Your task to perform on an android device: Check the weather Image 0: 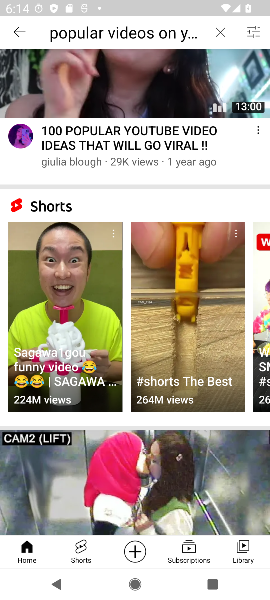
Step 0: press home button
Your task to perform on an android device: Check the weather Image 1: 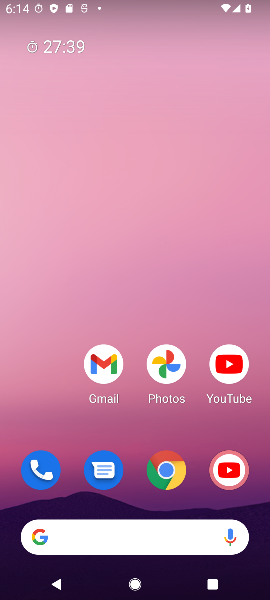
Step 1: click (168, 462)
Your task to perform on an android device: Check the weather Image 2: 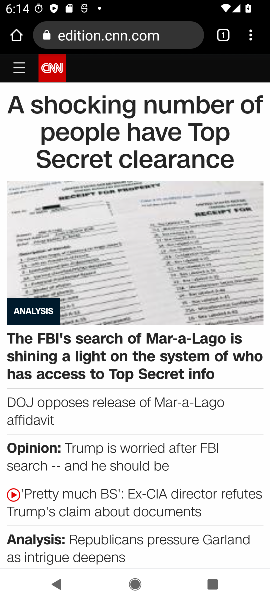
Step 2: click (90, 36)
Your task to perform on an android device: Check the weather Image 3: 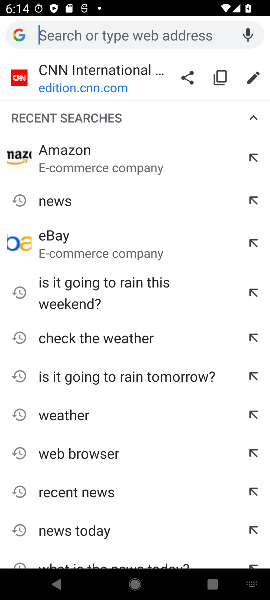
Step 3: type "Check the weather"
Your task to perform on an android device: Check the weather Image 4: 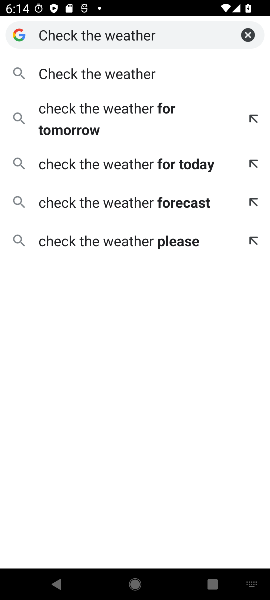
Step 4: click (121, 72)
Your task to perform on an android device: Check the weather Image 5: 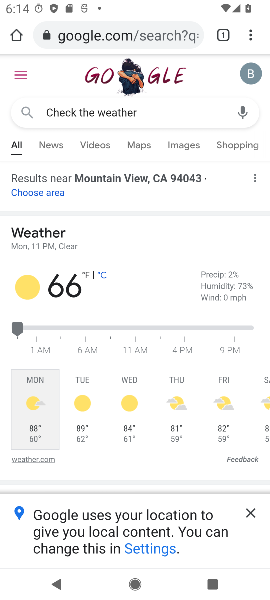
Step 5: task complete